Your task to perform on an android device: all mails in gmail Image 0: 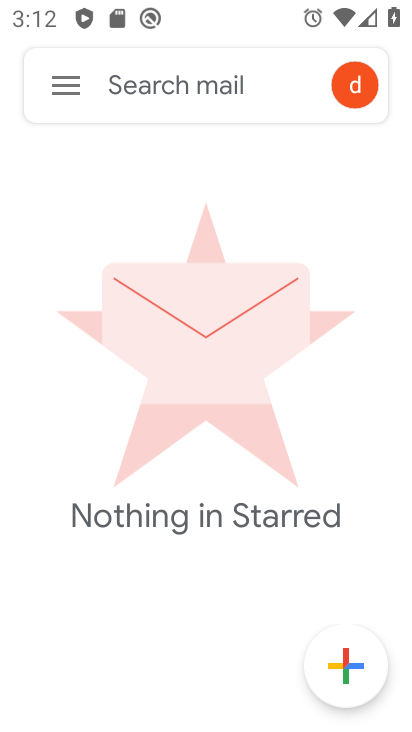
Step 0: press home button
Your task to perform on an android device: all mails in gmail Image 1: 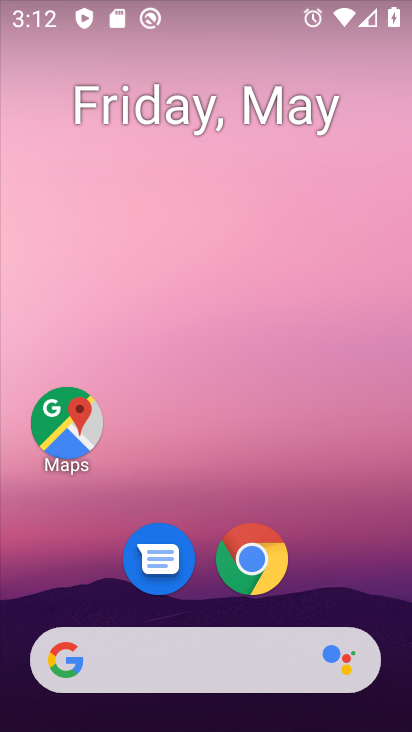
Step 1: drag from (357, 587) to (283, 241)
Your task to perform on an android device: all mails in gmail Image 2: 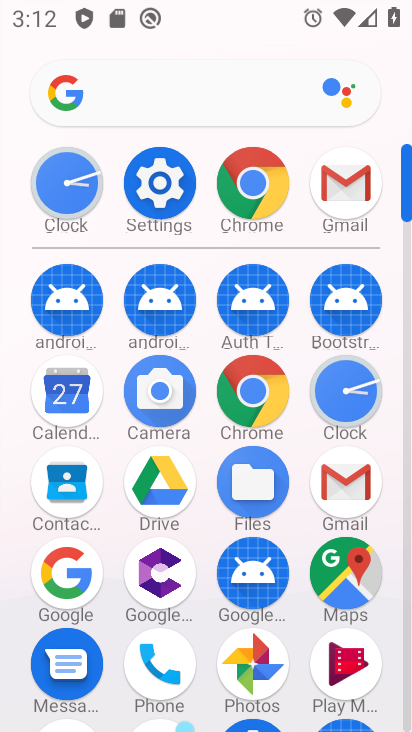
Step 2: click (349, 493)
Your task to perform on an android device: all mails in gmail Image 3: 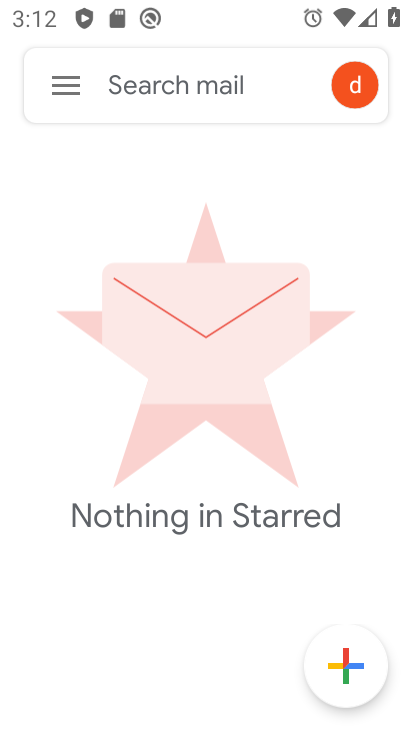
Step 3: click (67, 106)
Your task to perform on an android device: all mails in gmail Image 4: 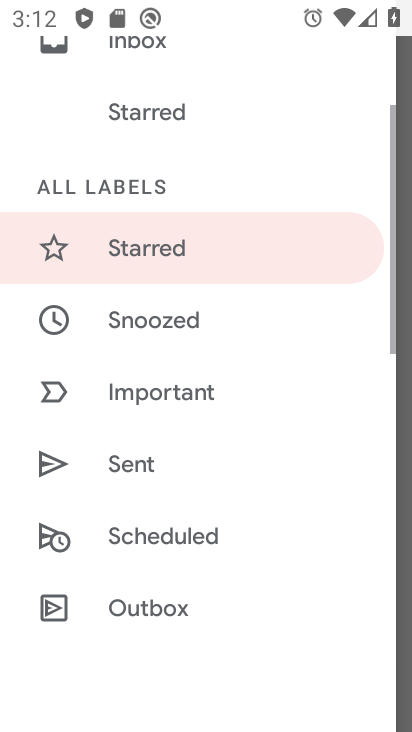
Step 4: drag from (169, 389) to (187, 610)
Your task to perform on an android device: all mails in gmail Image 5: 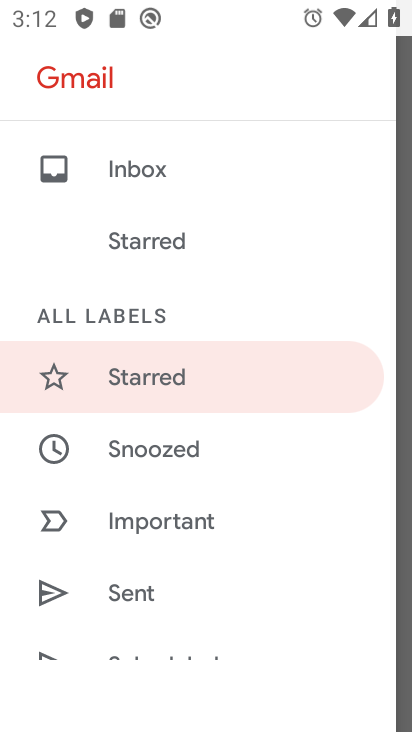
Step 5: drag from (194, 164) to (195, 561)
Your task to perform on an android device: all mails in gmail Image 6: 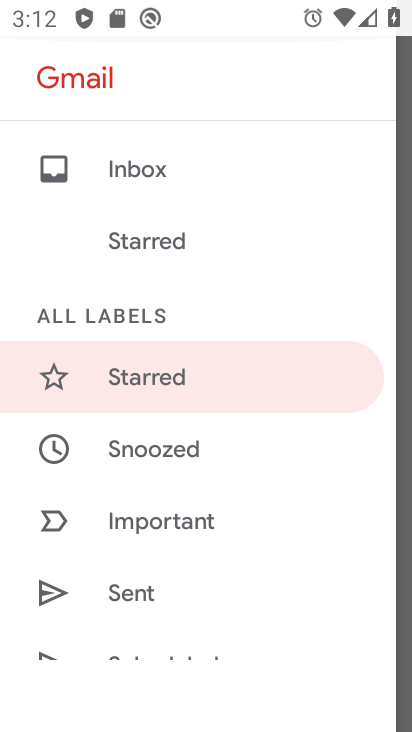
Step 6: drag from (195, 561) to (222, 241)
Your task to perform on an android device: all mails in gmail Image 7: 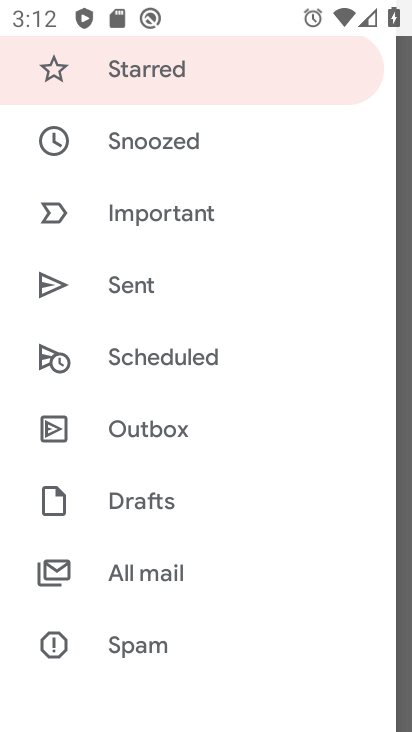
Step 7: click (187, 565)
Your task to perform on an android device: all mails in gmail Image 8: 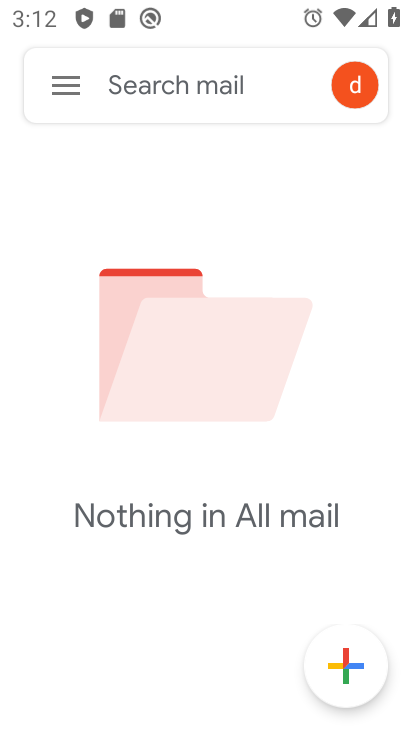
Step 8: task complete